Your task to perform on an android device: manage bookmarks in the chrome app Image 0: 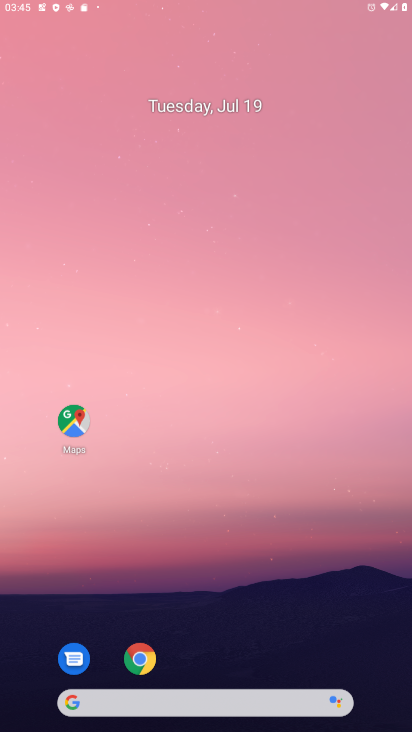
Step 0: press home button
Your task to perform on an android device: manage bookmarks in the chrome app Image 1: 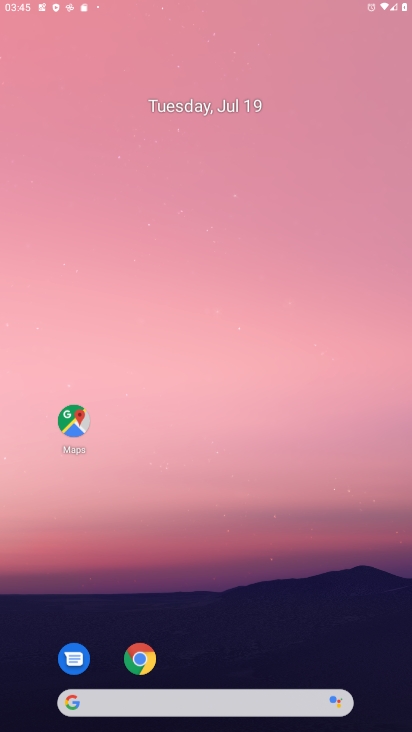
Step 1: click (228, 12)
Your task to perform on an android device: manage bookmarks in the chrome app Image 2: 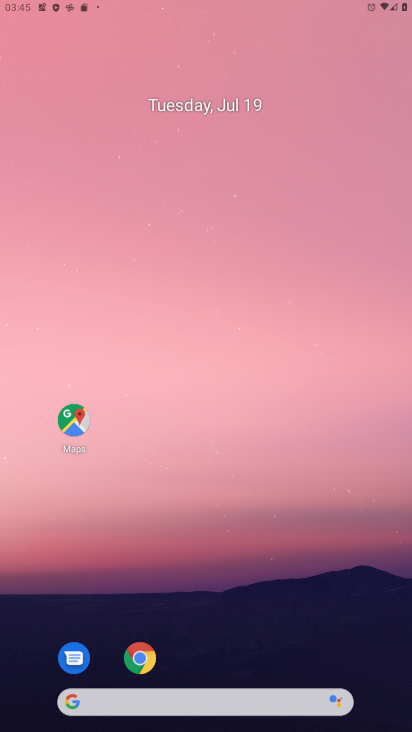
Step 2: drag from (263, 573) to (251, 110)
Your task to perform on an android device: manage bookmarks in the chrome app Image 3: 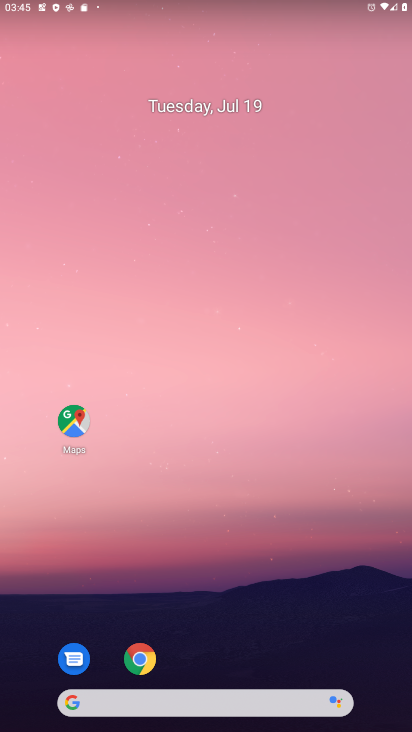
Step 3: click (122, 681)
Your task to perform on an android device: manage bookmarks in the chrome app Image 4: 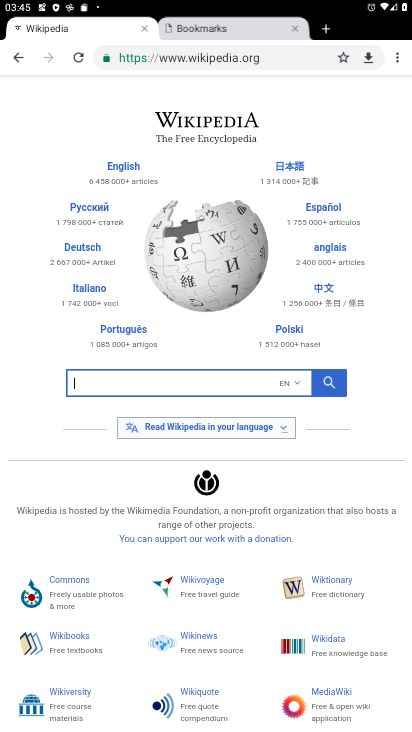
Step 4: drag from (393, 54) to (289, 160)
Your task to perform on an android device: manage bookmarks in the chrome app Image 5: 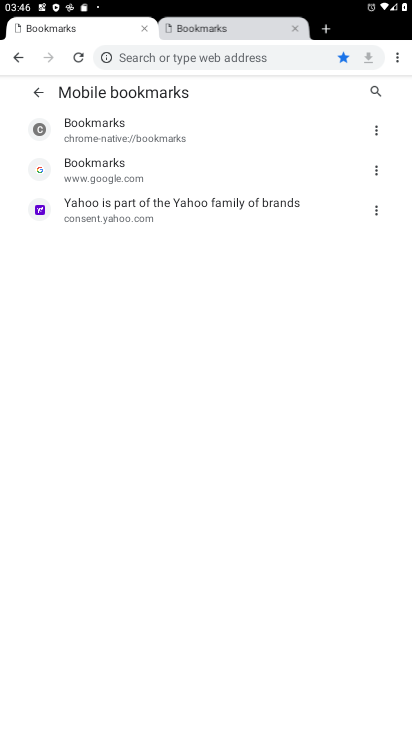
Step 5: click (373, 164)
Your task to perform on an android device: manage bookmarks in the chrome app Image 6: 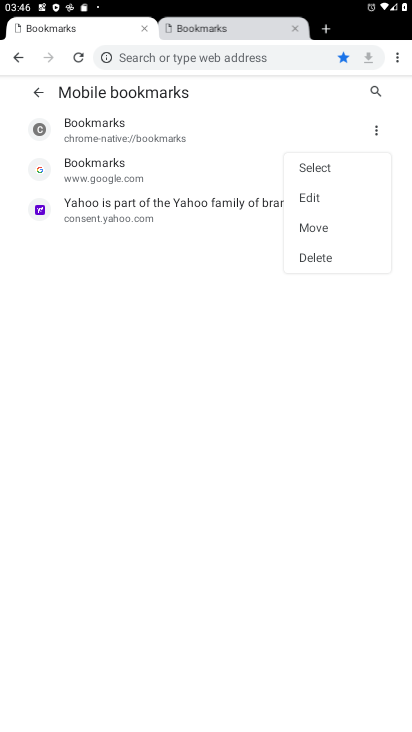
Step 6: click (321, 264)
Your task to perform on an android device: manage bookmarks in the chrome app Image 7: 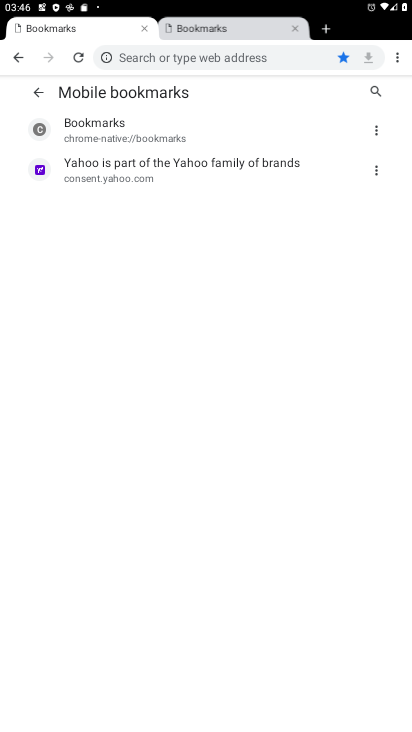
Step 7: task complete